Your task to perform on an android device: Open the web browser Image 0: 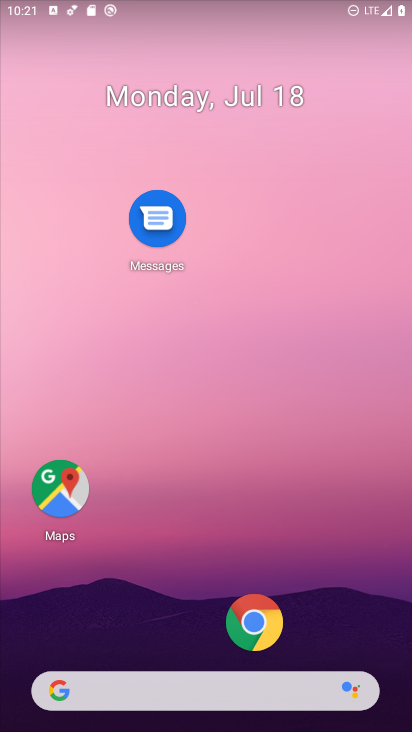
Step 0: drag from (245, 640) to (244, 137)
Your task to perform on an android device: Open the web browser Image 1: 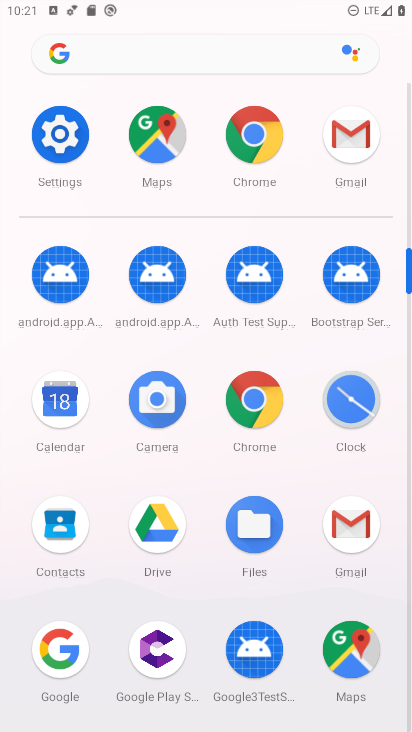
Step 1: click (265, 161)
Your task to perform on an android device: Open the web browser Image 2: 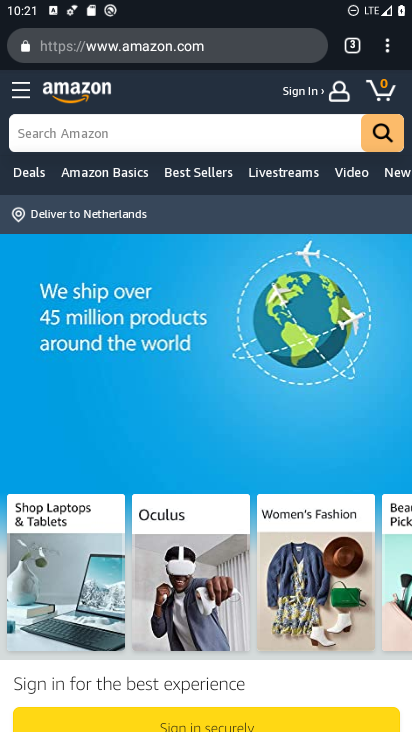
Step 2: task complete